Your task to perform on an android device: When is my next meeting? Image 0: 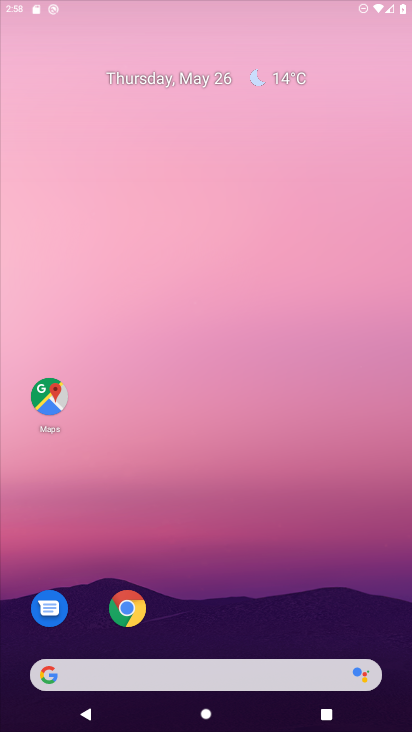
Step 0: drag from (255, 466) to (205, 33)
Your task to perform on an android device: When is my next meeting? Image 1: 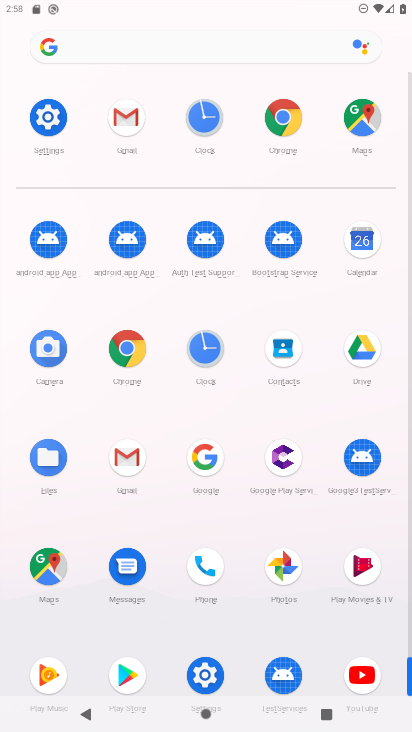
Step 1: click (355, 246)
Your task to perform on an android device: When is my next meeting? Image 2: 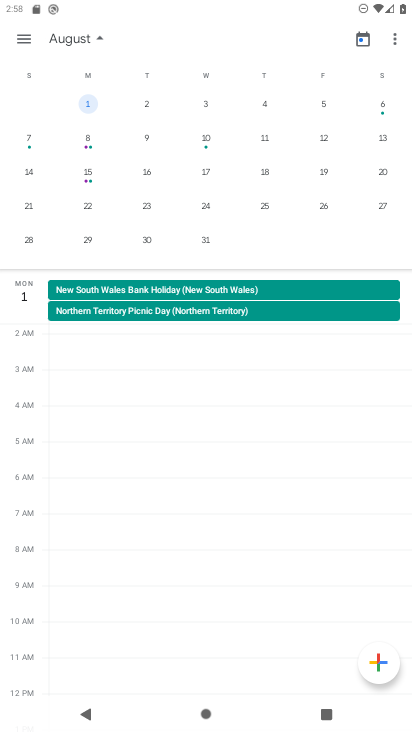
Step 2: click (141, 113)
Your task to perform on an android device: When is my next meeting? Image 3: 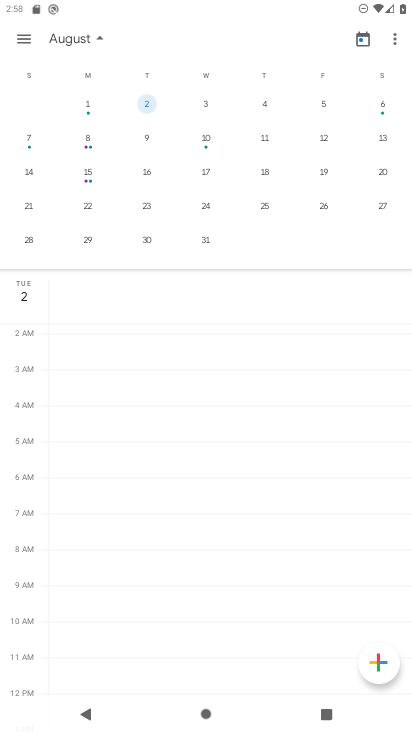
Step 3: task complete